Your task to perform on an android device: toggle priority inbox in the gmail app Image 0: 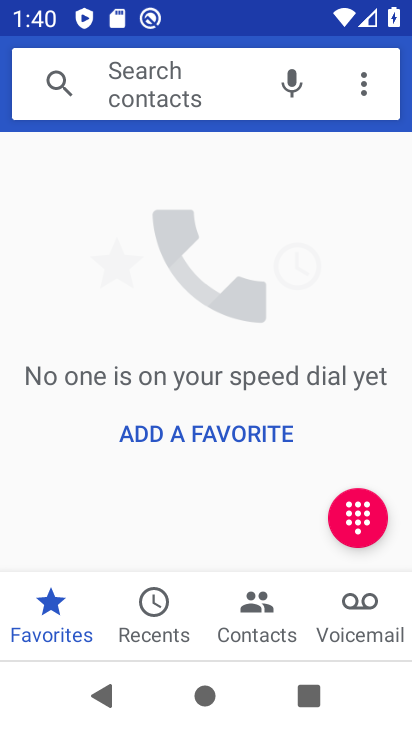
Step 0: press home button
Your task to perform on an android device: toggle priority inbox in the gmail app Image 1: 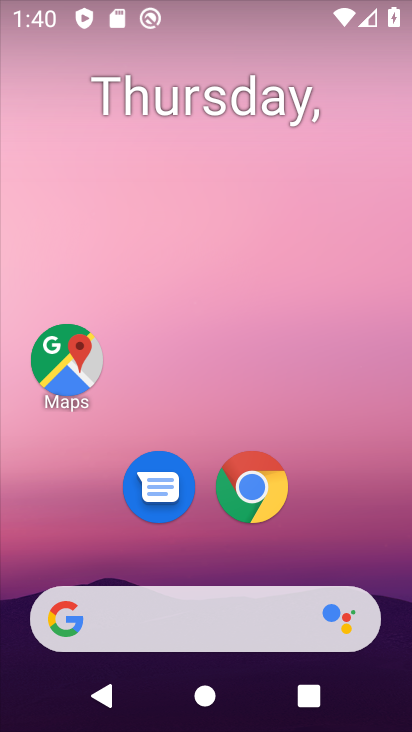
Step 1: drag from (317, 542) to (344, 33)
Your task to perform on an android device: toggle priority inbox in the gmail app Image 2: 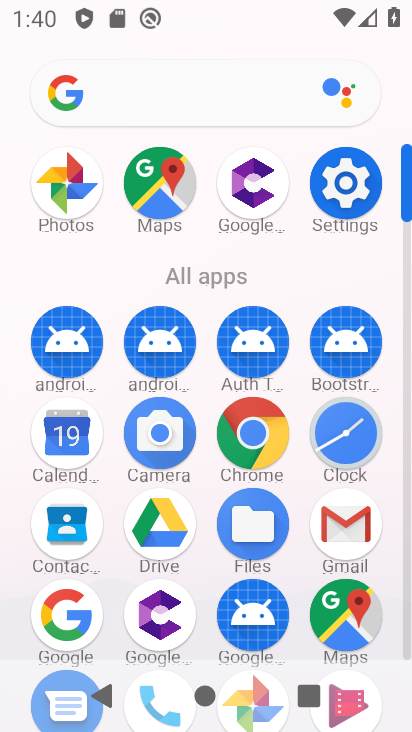
Step 2: click (348, 527)
Your task to perform on an android device: toggle priority inbox in the gmail app Image 3: 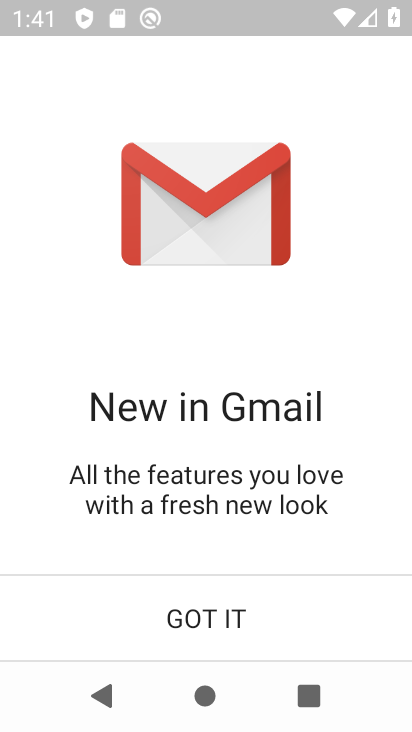
Step 3: click (227, 587)
Your task to perform on an android device: toggle priority inbox in the gmail app Image 4: 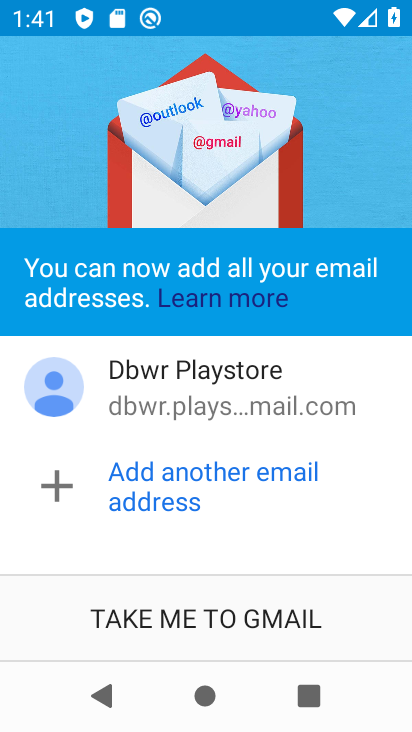
Step 4: click (202, 610)
Your task to perform on an android device: toggle priority inbox in the gmail app Image 5: 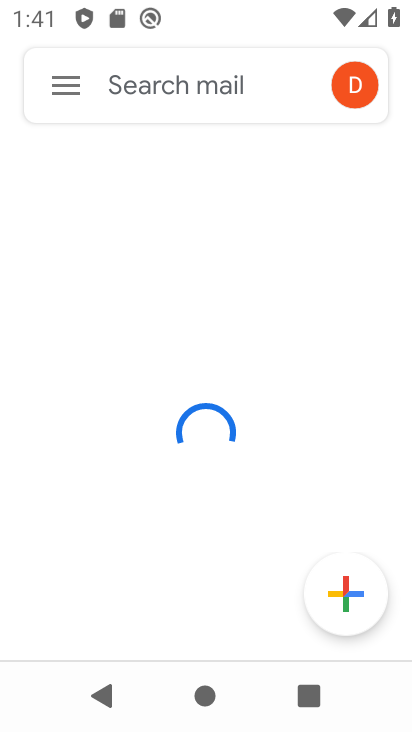
Step 5: click (52, 83)
Your task to perform on an android device: toggle priority inbox in the gmail app Image 6: 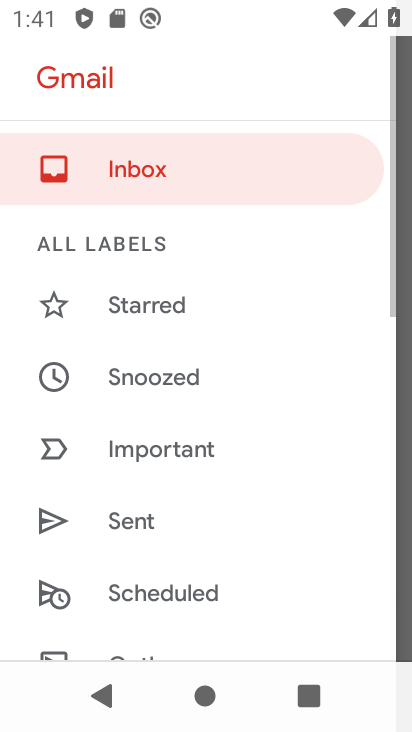
Step 6: drag from (161, 615) to (144, 202)
Your task to perform on an android device: toggle priority inbox in the gmail app Image 7: 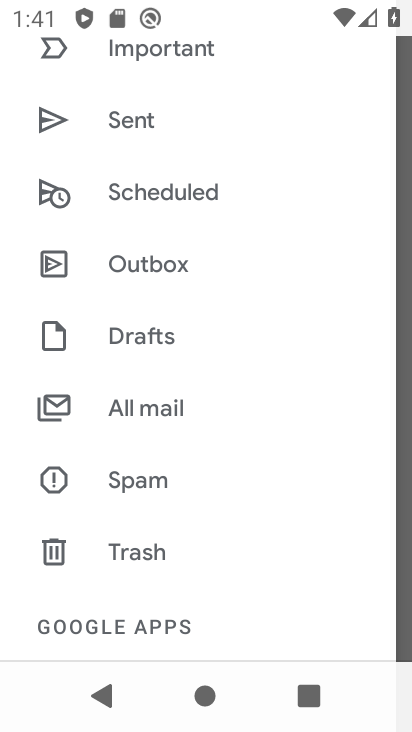
Step 7: drag from (114, 618) to (120, 195)
Your task to perform on an android device: toggle priority inbox in the gmail app Image 8: 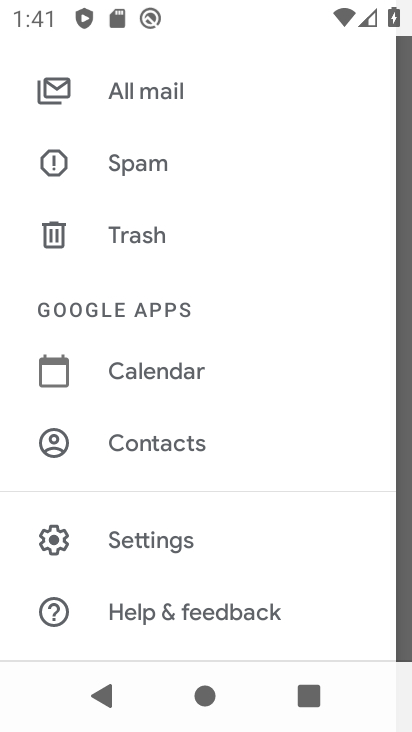
Step 8: click (149, 553)
Your task to perform on an android device: toggle priority inbox in the gmail app Image 9: 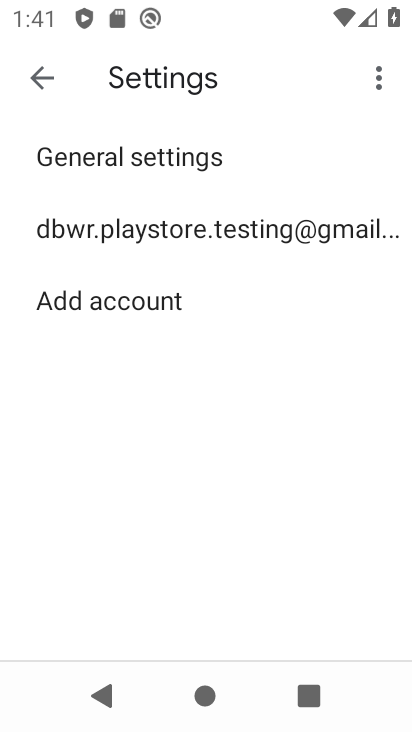
Step 9: click (184, 216)
Your task to perform on an android device: toggle priority inbox in the gmail app Image 10: 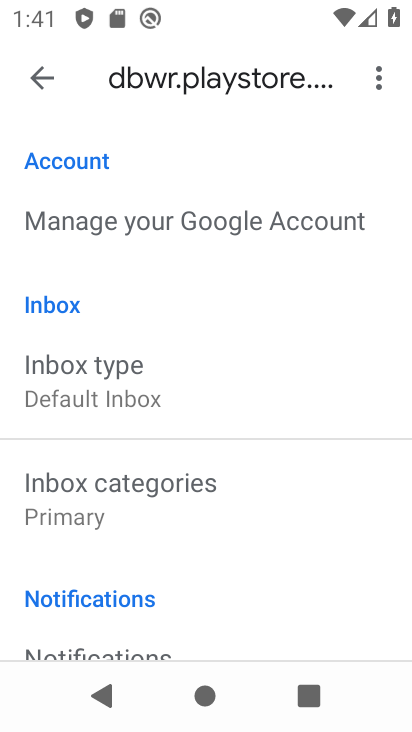
Step 10: click (87, 395)
Your task to perform on an android device: toggle priority inbox in the gmail app Image 11: 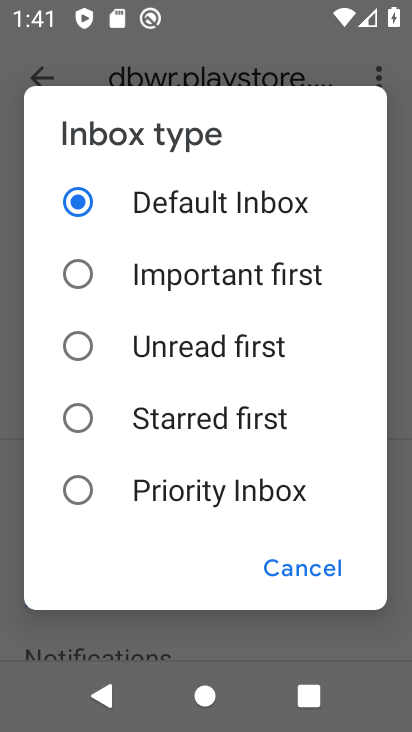
Step 11: click (108, 491)
Your task to perform on an android device: toggle priority inbox in the gmail app Image 12: 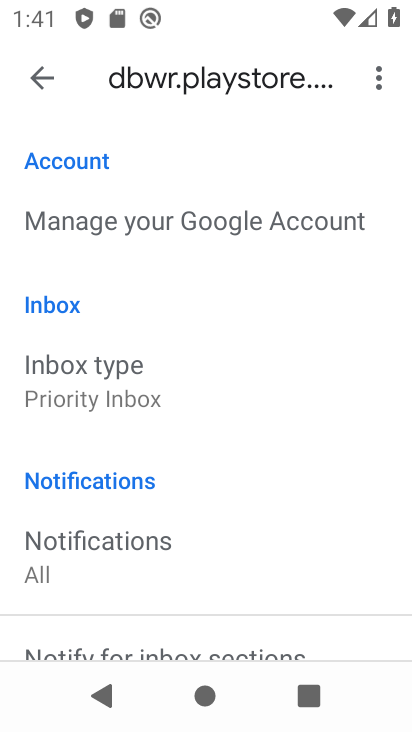
Step 12: task complete